Your task to perform on an android device: toggle notification dots Image 0: 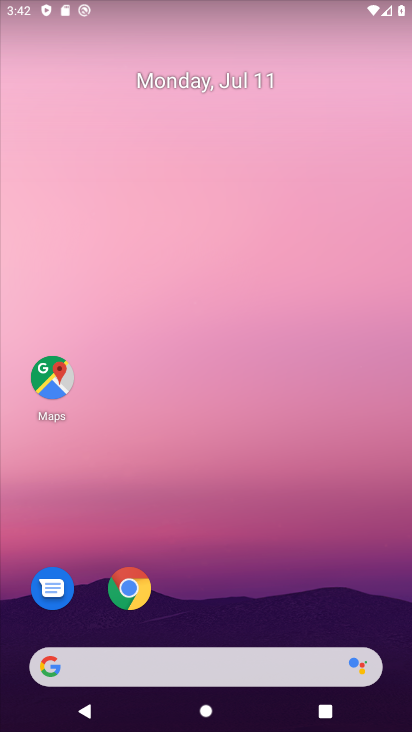
Step 0: drag from (361, 596) to (366, 114)
Your task to perform on an android device: toggle notification dots Image 1: 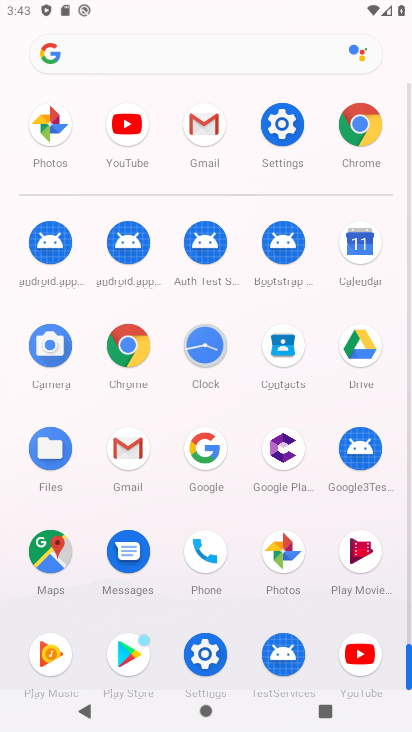
Step 1: click (288, 141)
Your task to perform on an android device: toggle notification dots Image 2: 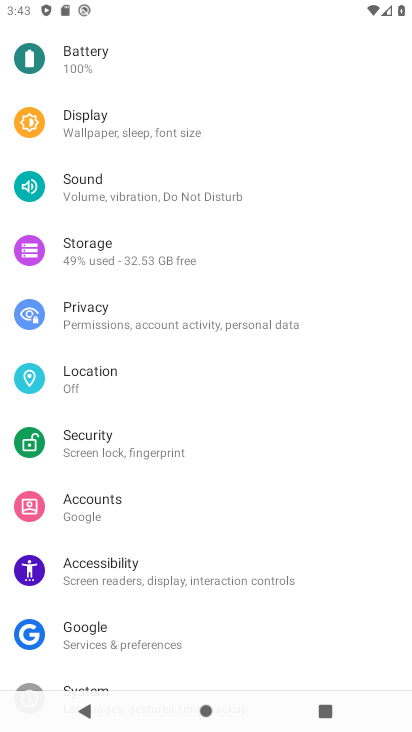
Step 2: drag from (312, 171) to (321, 257)
Your task to perform on an android device: toggle notification dots Image 3: 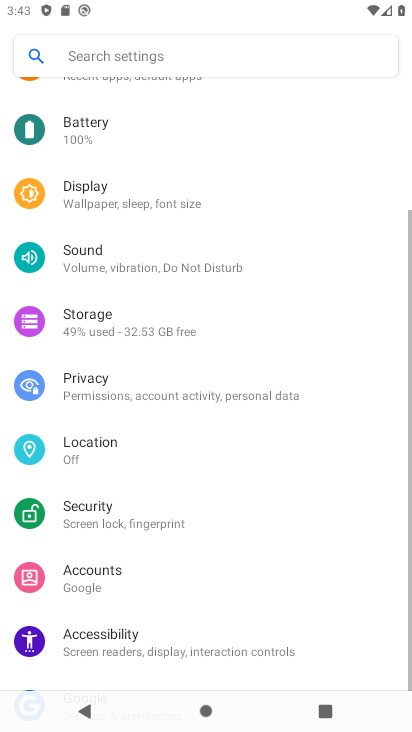
Step 3: drag from (335, 168) to (345, 273)
Your task to perform on an android device: toggle notification dots Image 4: 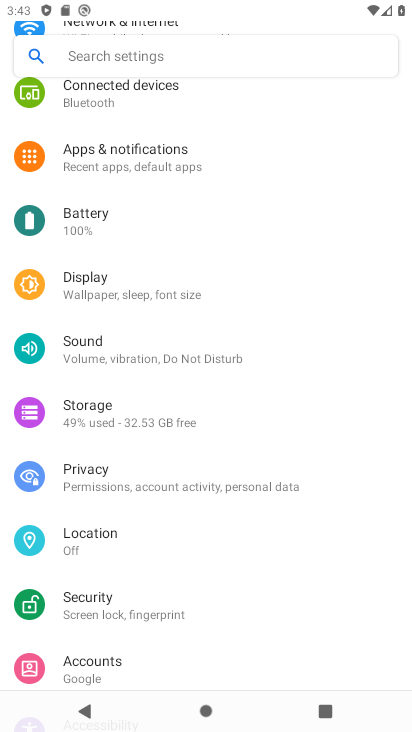
Step 4: drag from (345, 163) to (353, 291)
Your task to perform on an android device: toggle notification dots Image 5: 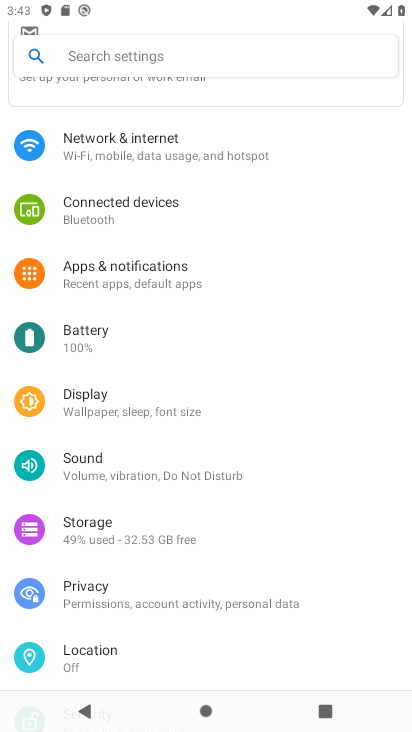
Step 5: drag from (347, 169) to (346, 344)
Your task to perform on an android device: toggle notification dots Image 6: 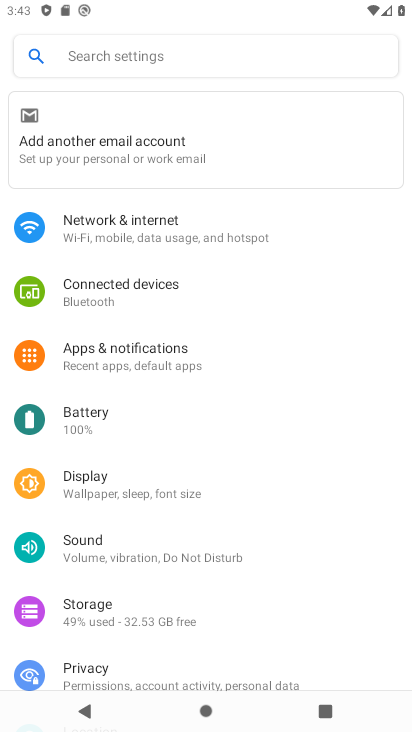
Step 6: click (199, 360)
Your task to perform on an android device: toggle notification dots Image 7: 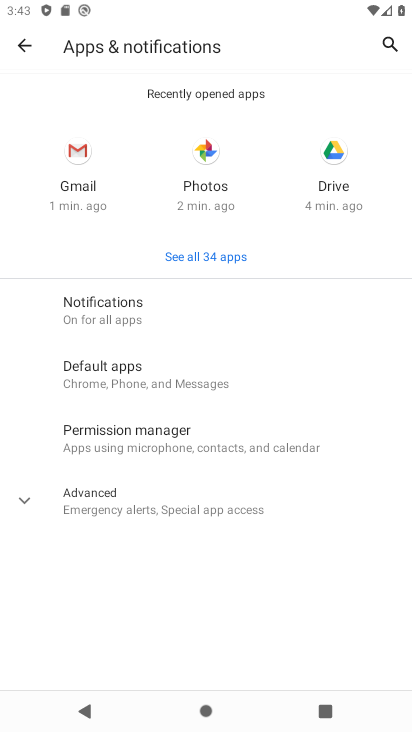
Step 7: click (153, 314)
Your task to perform on an android device: toggle notification dots Image 8: 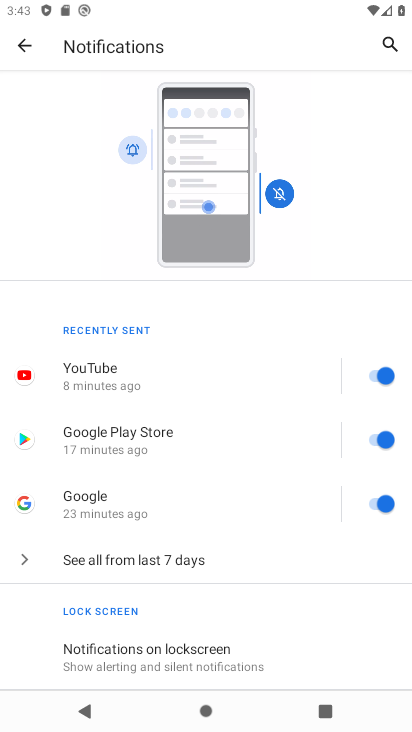
Step 8: drag from (298, 469) to (310, 321)
Your task to perform on an android device: toggle notification dots Image 9: 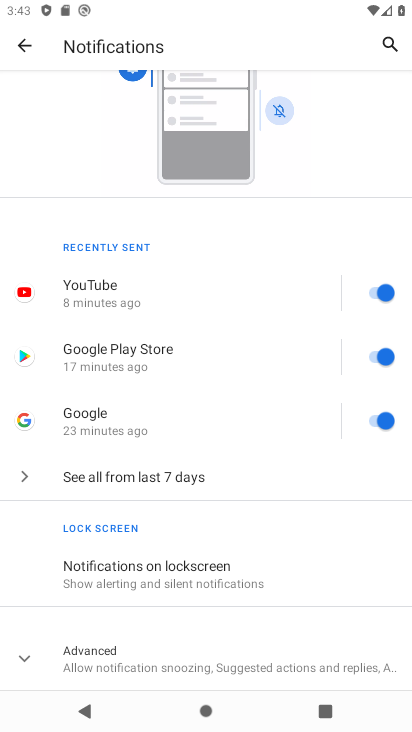
Step 9: drag from (278, 475) to (293, 339)
Your task to perform on an android device: toggle notification dots Image 10: 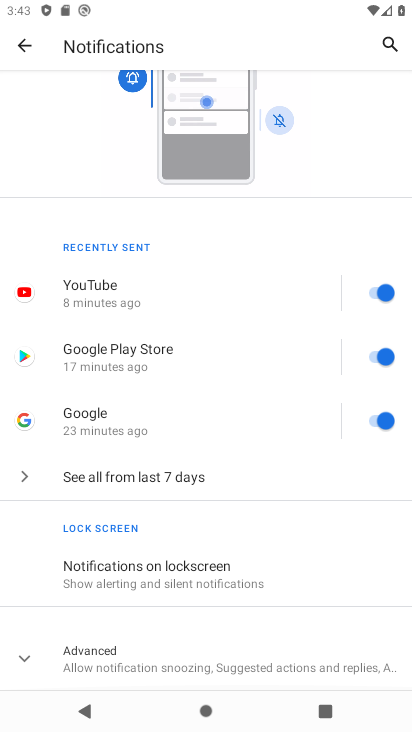
Step 10: click (237, 651)
Your task to perform on an android device: toggle notification dots Image 11: 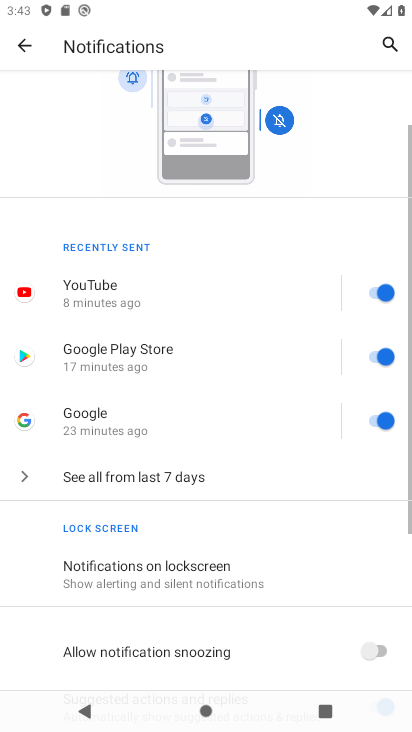
Step 11: drag from (301, 539) to (308, 436)
Your task to perform on an android device: toggle notification dots Image 12: 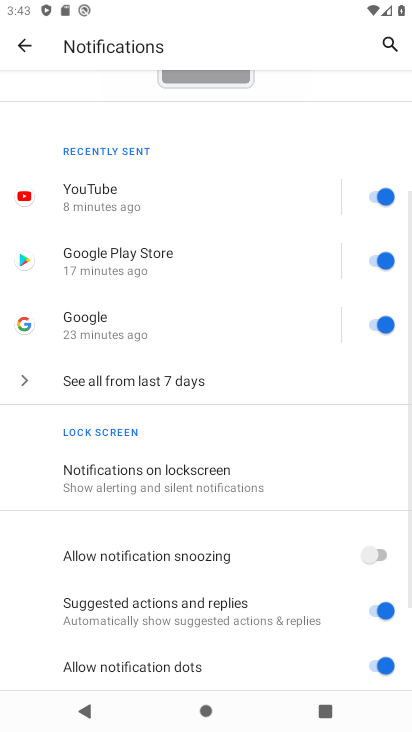
Step 12: drag from (272, 562) to (274, 346)
Your task to perform on an android device: toggle notification dots Image 13: 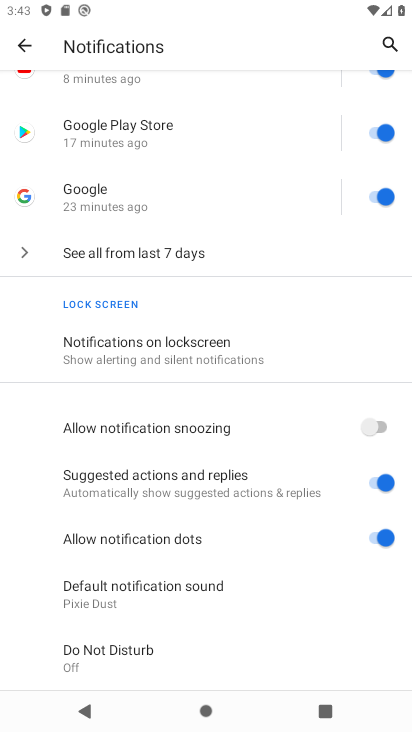
Step 13: click (388, 536)
Your task to perform on an android device: toggle notification dots Image 14: 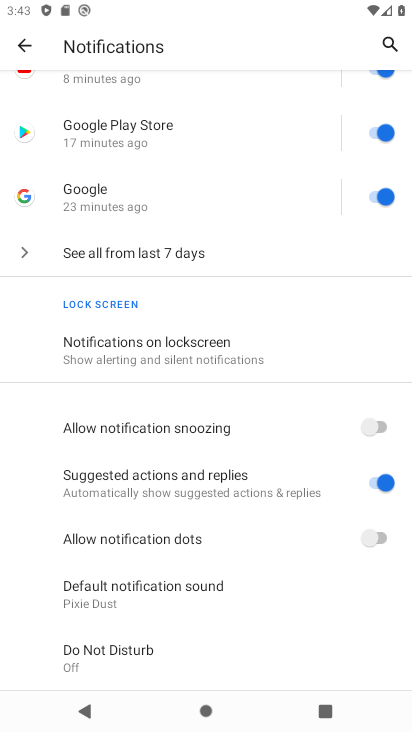
Step 14: task complete